Your task to perform on an android device: What's on my calendar tomorrow? Image 0: 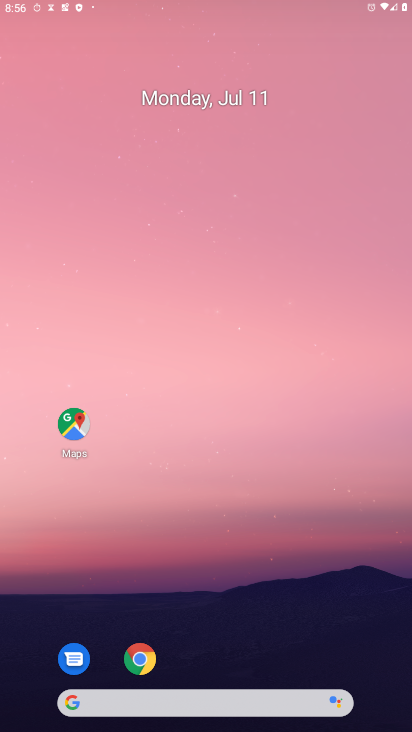
Step 0: drag from (201, 673) to (406, 47)
Your task to perform on an android device: What's on my calendar tomorrow? Image 1: 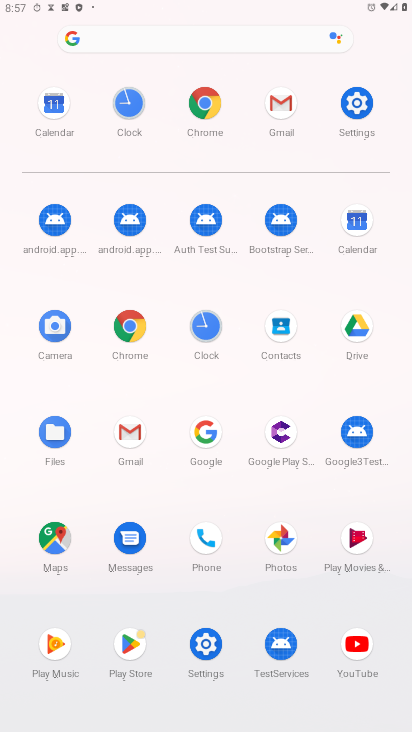
Step 1: click (344, 218)
Your task to perform on an android device: What's on my calendar tomorrow? Image 2: 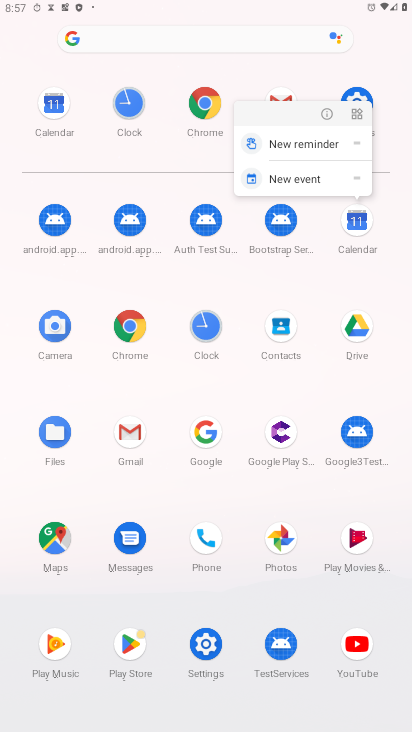
Step 2: click (327, 108)
Your task to perform on an android device: What's on my calendar tomorrow? Image 3: 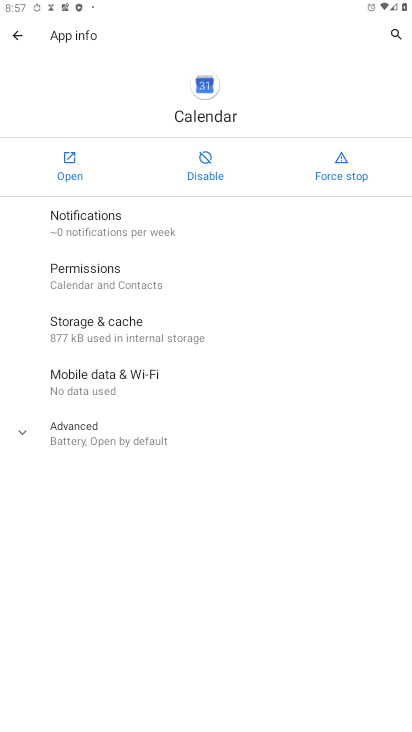
Step 3: click (74, 151)
Your task to perform on an android device: What's on my calendar tomorrow? Image 4: 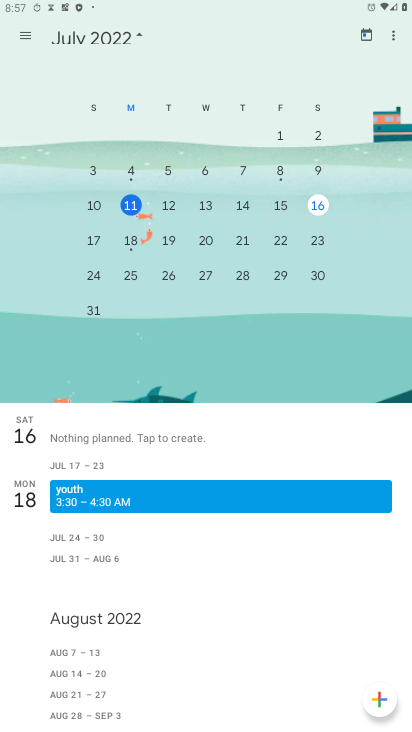
Step 4: click (125, 205)
Your task to perform on an android device: What's on my calendar tomorrow? Image 5: 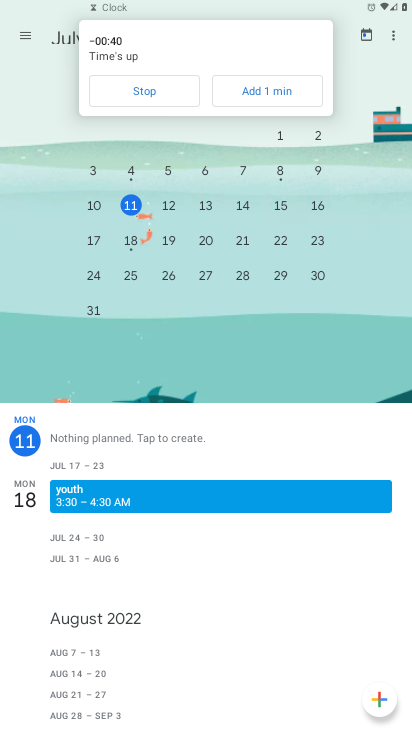
Step 5: click (135, 142)
Your task to perform on an android device: What's on my calendar tomorrow? Image 6: 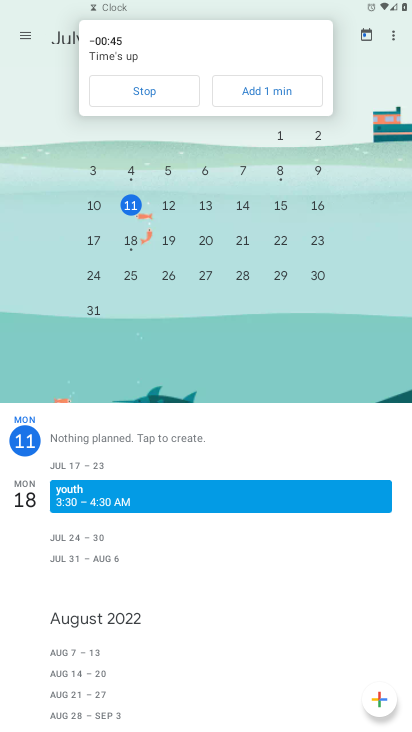
Step 6: click (129, 208)
Your task to perform on an android device: What's on my calendar tomorrow? Image 7: 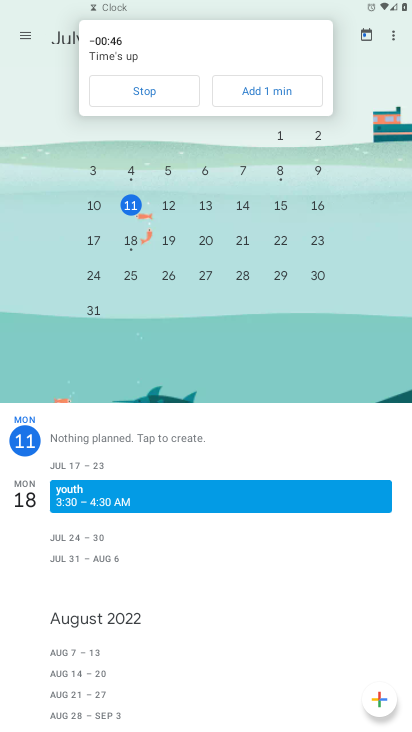
Step 7: task complete